Your task to perform on an android device: open app "TextNow: Call + Text Unlimited" (install if not already installed) and enter user name: "stoke@yahoo.com" and password: "prompted" Image 0: 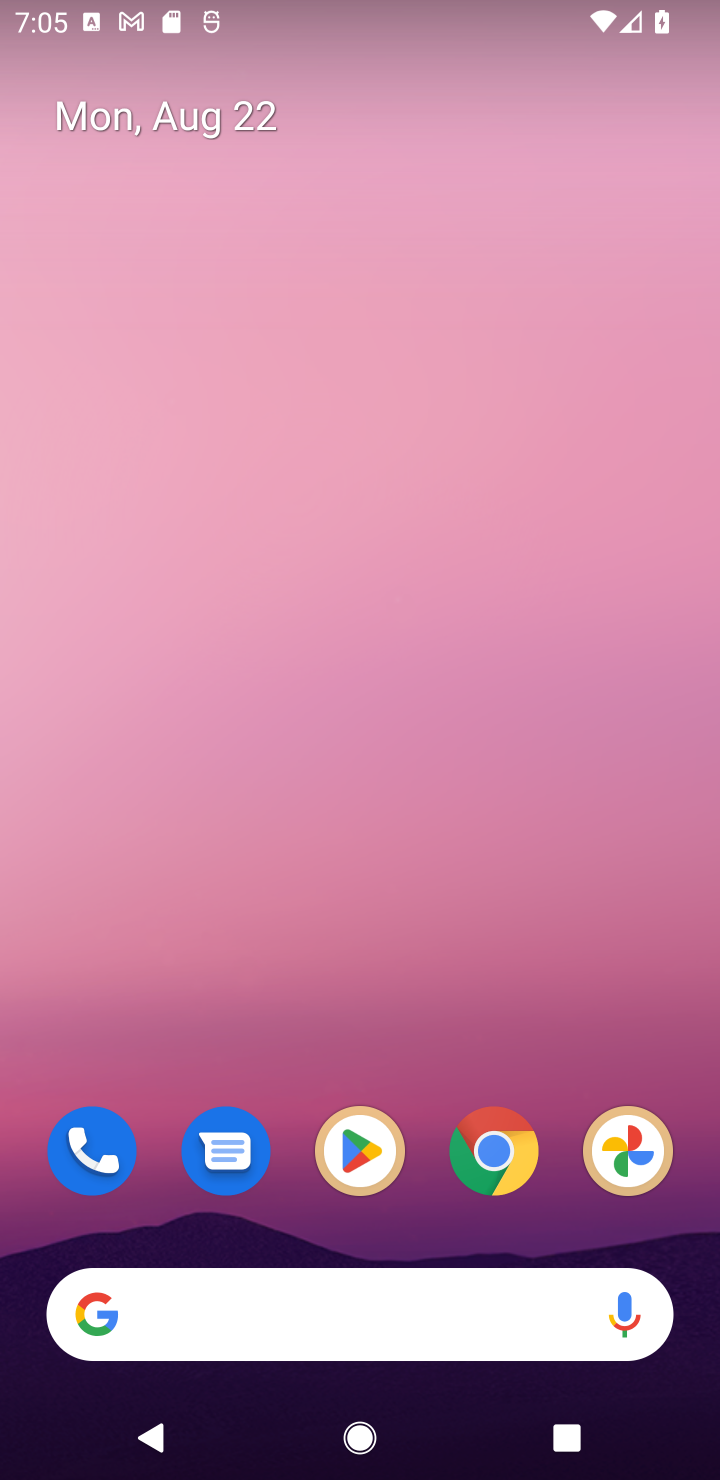
Step 0: click (342, 1141)
Your task to perform on an android device: open app "TextNow: Call + Text Unlimited" (install if not already installed) and enter user name: "stoke@yahoo.com" and password: "prompted" Image 1: 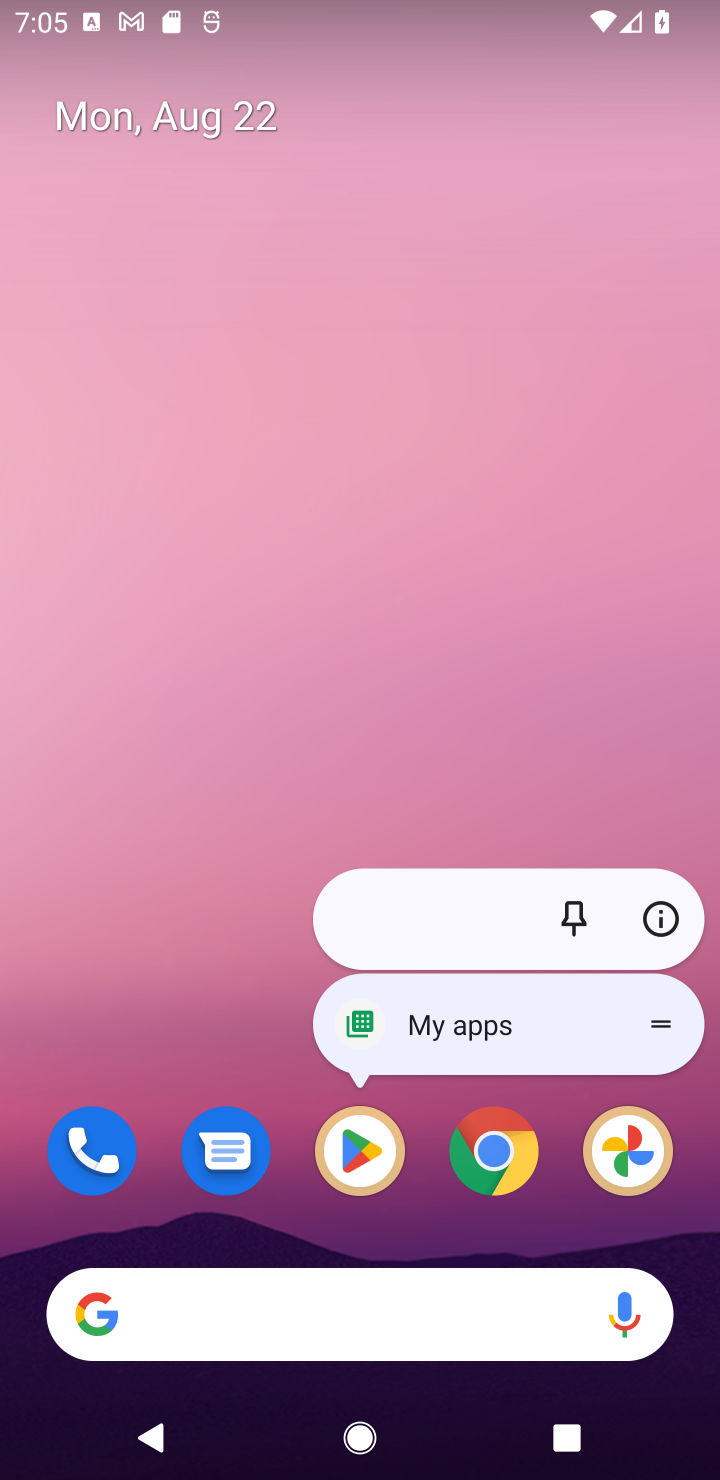
Step 1: click (347, 1141)
Your task to perform on an android device: open app "TextNow: Call + Text Unlimited" (install if not already installed) and enter user name: "stoke@yahoo.com" and password: "prompted" Image 2: 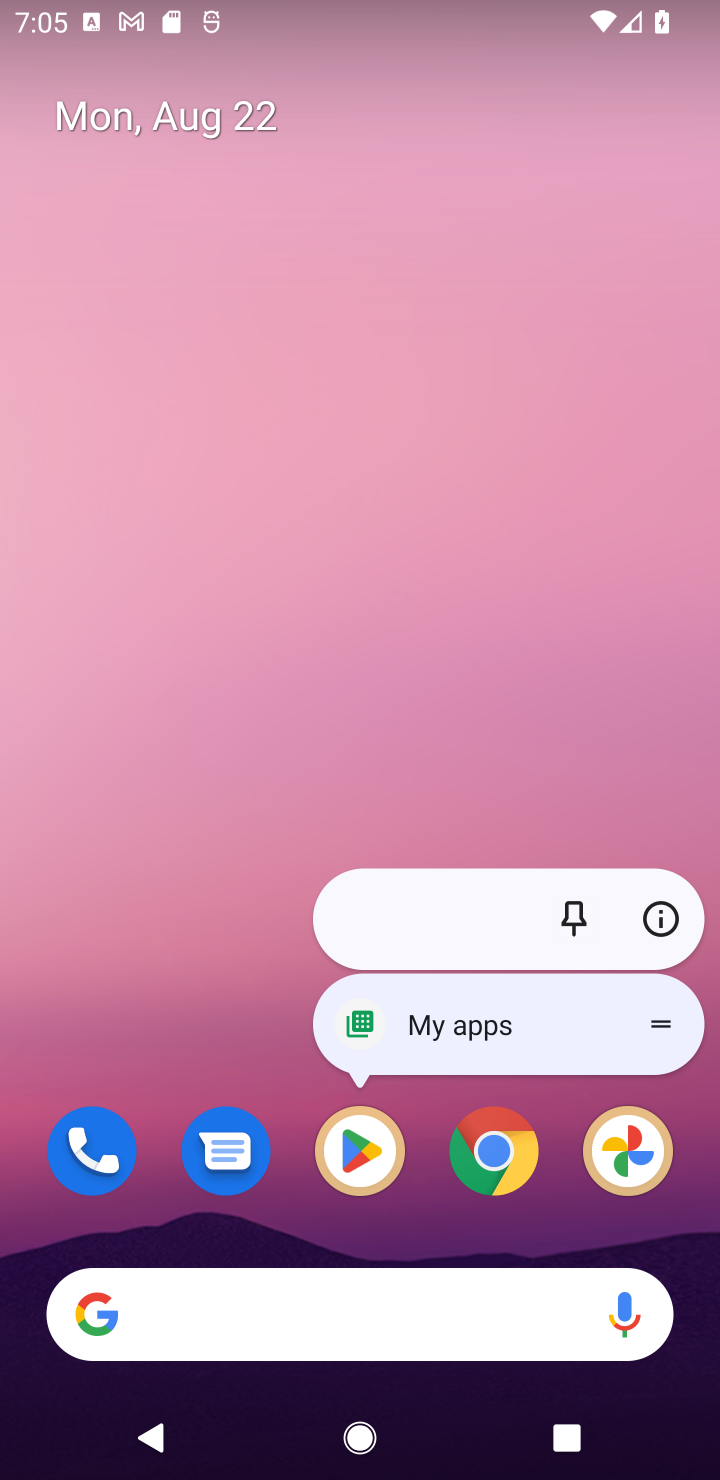
Step 2: click (347, 1142)
Your task to perform on an android device: open app "TextNow: Call + Text Unlimited" (install if not already installed) and enter user name: "stoke@yahoo.com" and password: "prompted" Image 3: 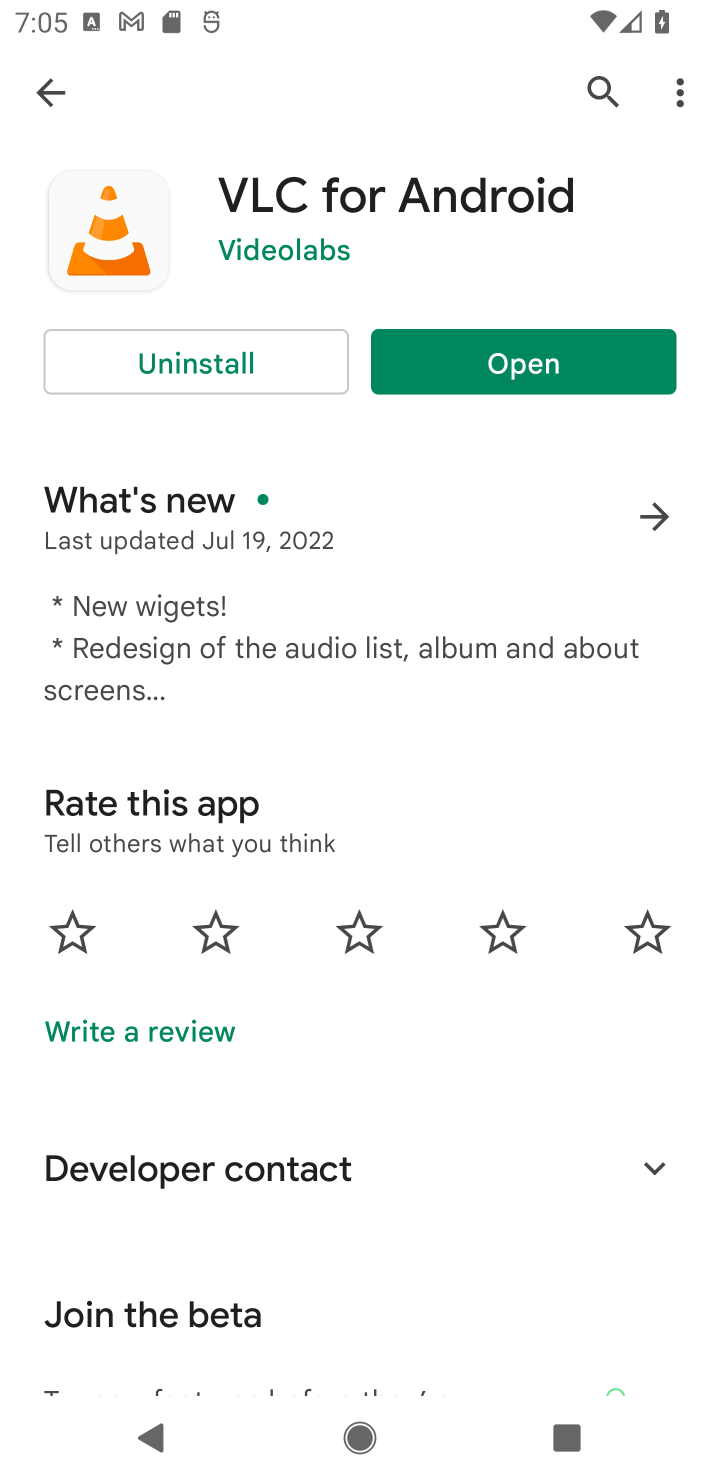
Step 3: click (592, 89)
Your task to perform on an android device: open app "TextNow: Call + Text Unlimited" (install if not already installed) and enter user name: "stoke@yahoo.com" and password: "prompted" Image 4: 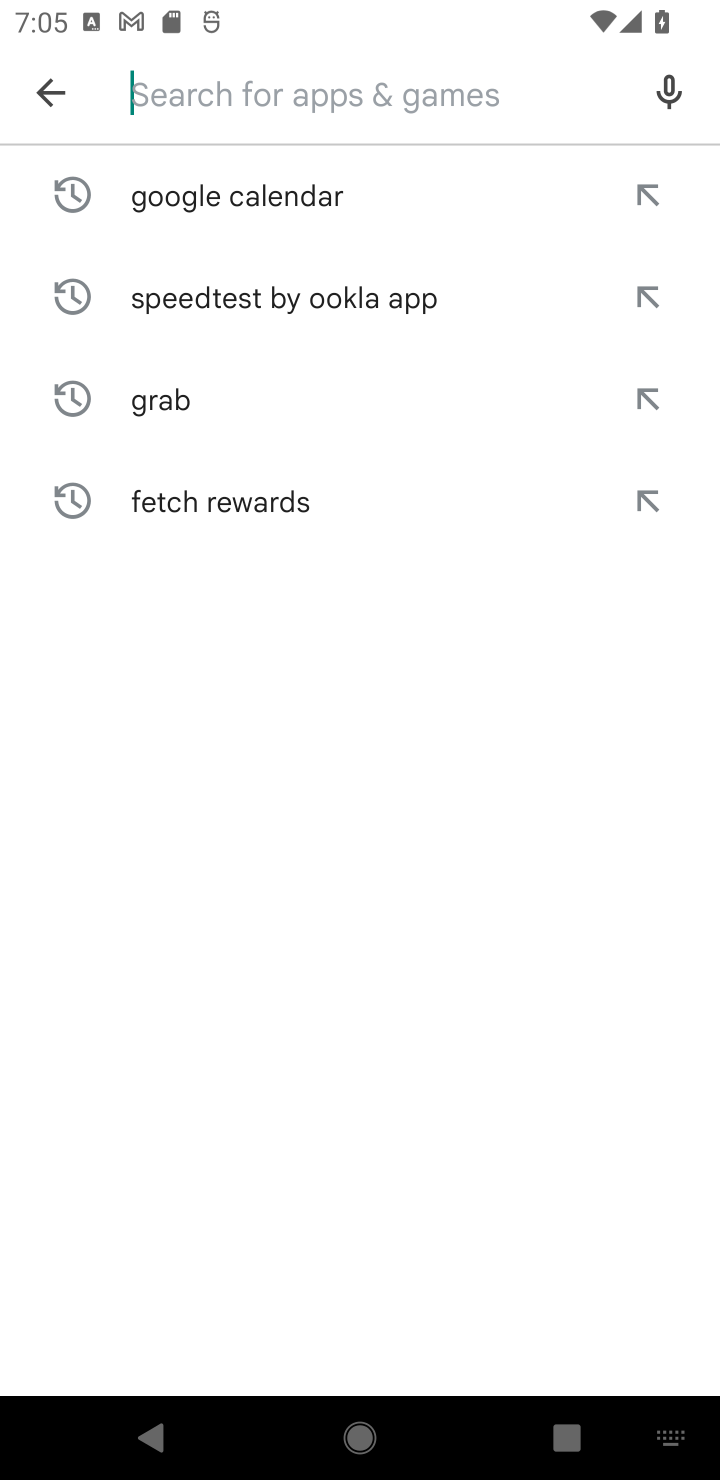
Step 4: type "TextNow: Call + Text Unlimited"
Your task to perform on an android device: open app "TextNow: Call + Text Unlimited" (install if not already installed) and enter user name: "stoke@yahoo.com" and password: "prompted" Image 5: 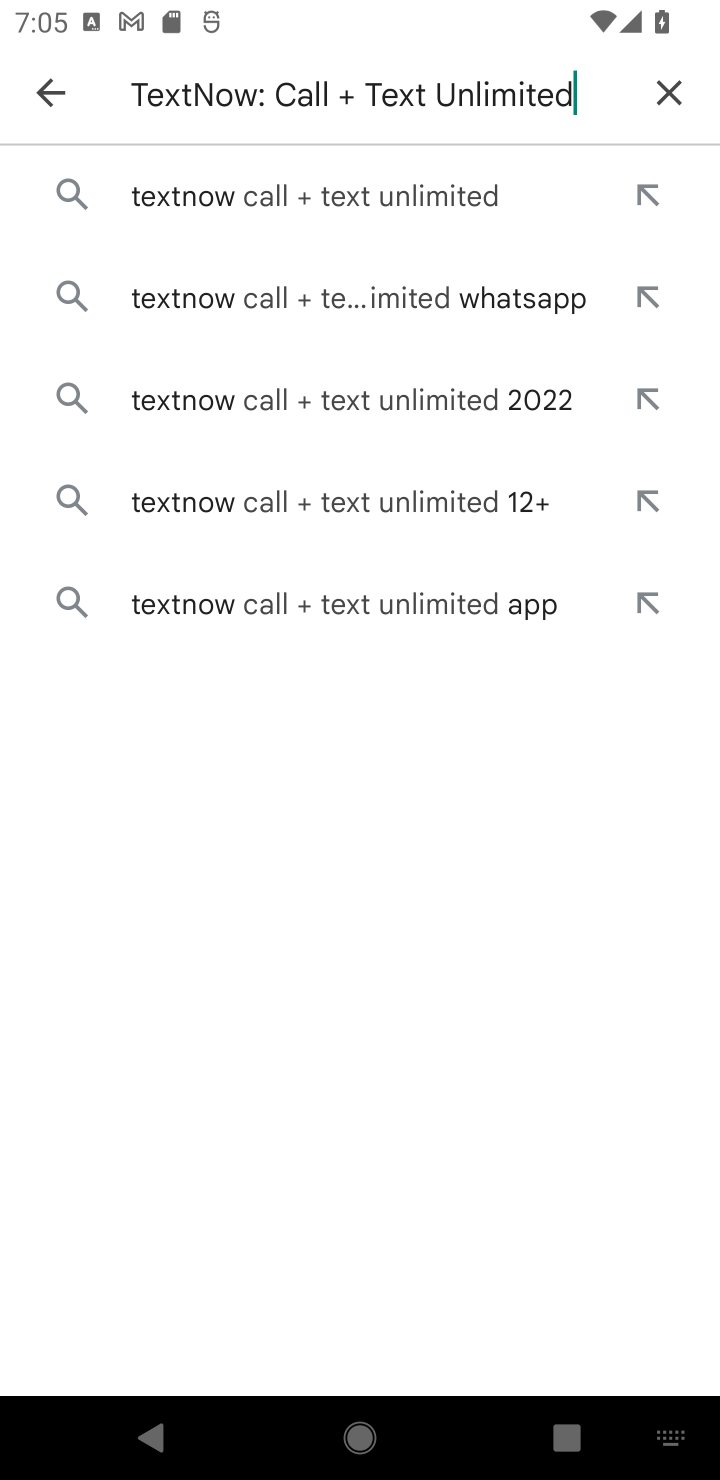
Step 5: click (256, 196)
Your task to perform on an android device: open app "TextNow: Call + Text Unlimited" (install if not already installed) and enter user name: "stoke@yahoo.com" and password: "prompted" Image 6: 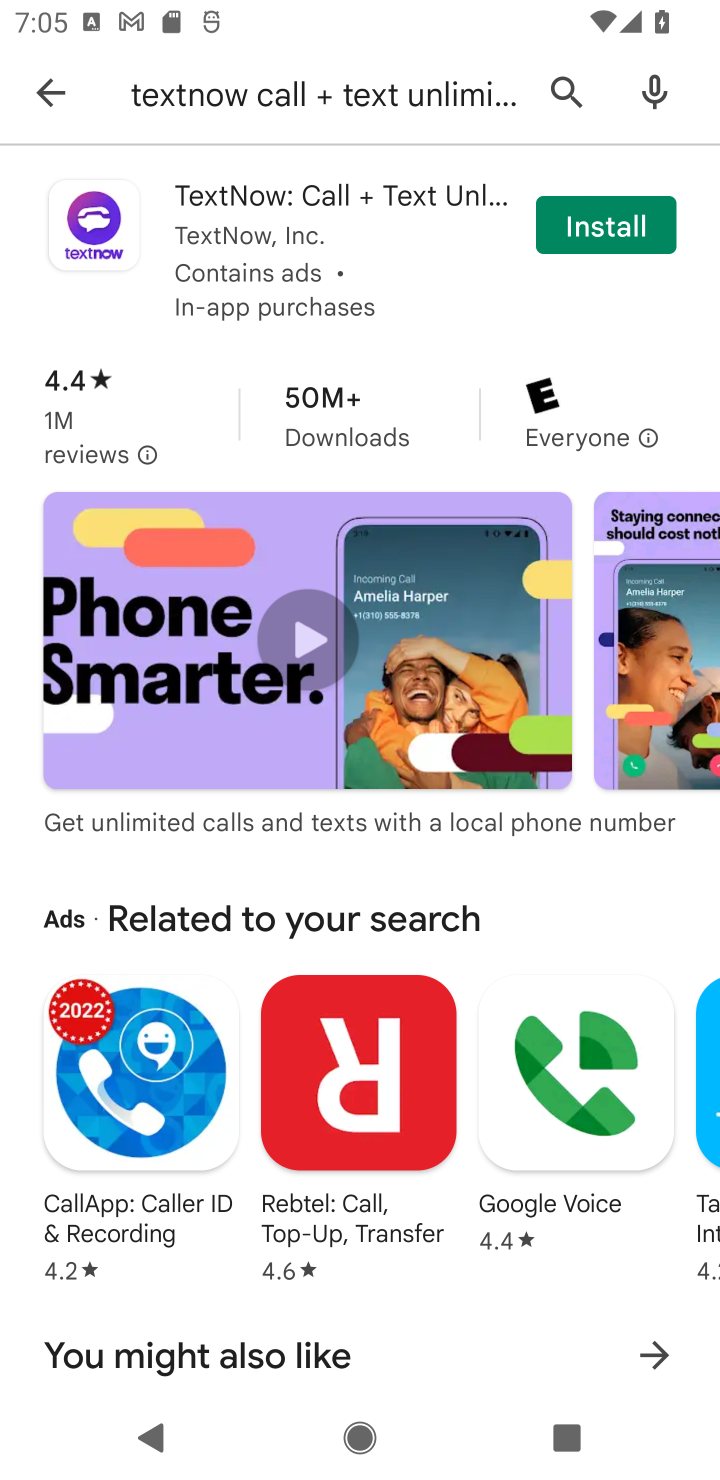
Step 6: click (580, 224)
Your task to perform on an android device: open app "TextNow: Call + Text Unlimited" (install if not already installed) and enter user name: "stoke@yahoo.com" and password: "prompted" Image 7: 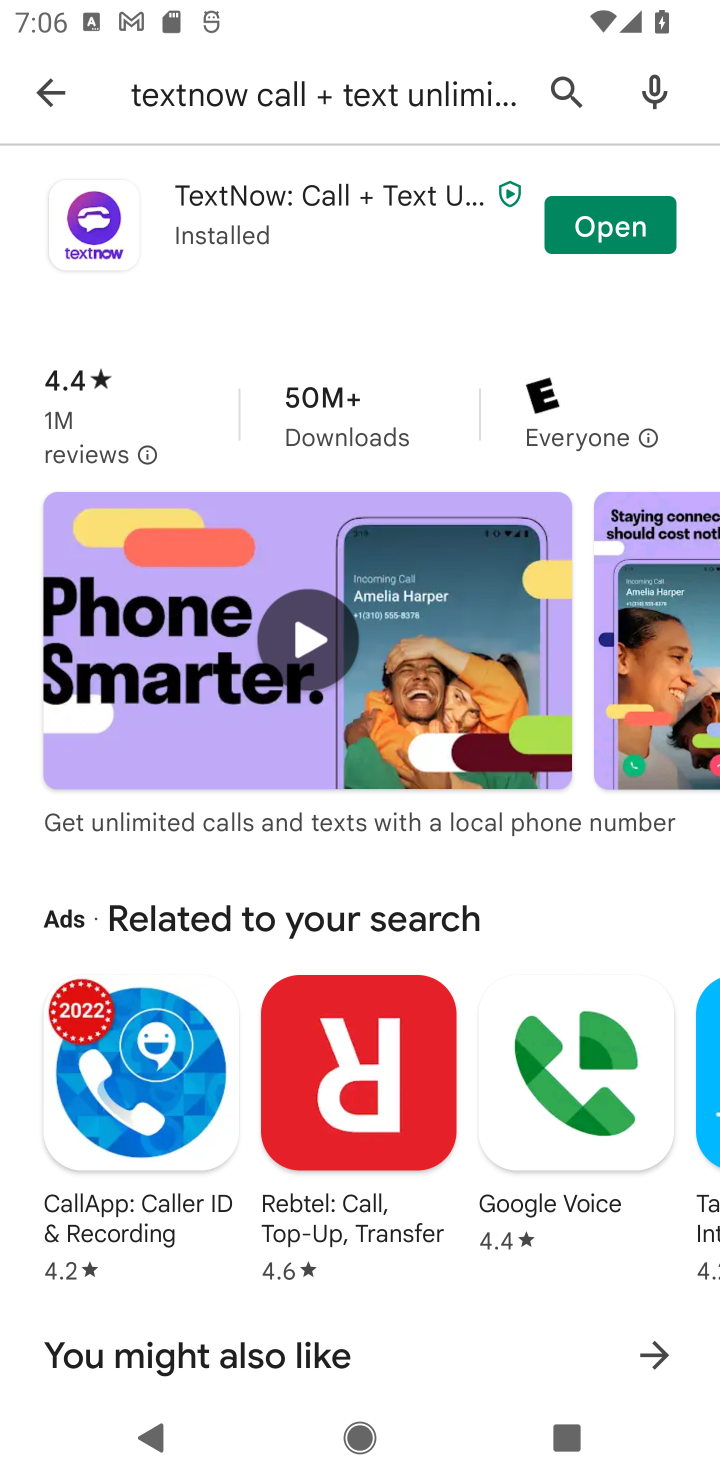
Step 7: click (596, 236)
Your task to perform on an android device: open app "TextNow: Call + Text Unlimited" (install if not already installed) and enter user name: "stoke@yahoo.com" and password: "prompted" Image 8: 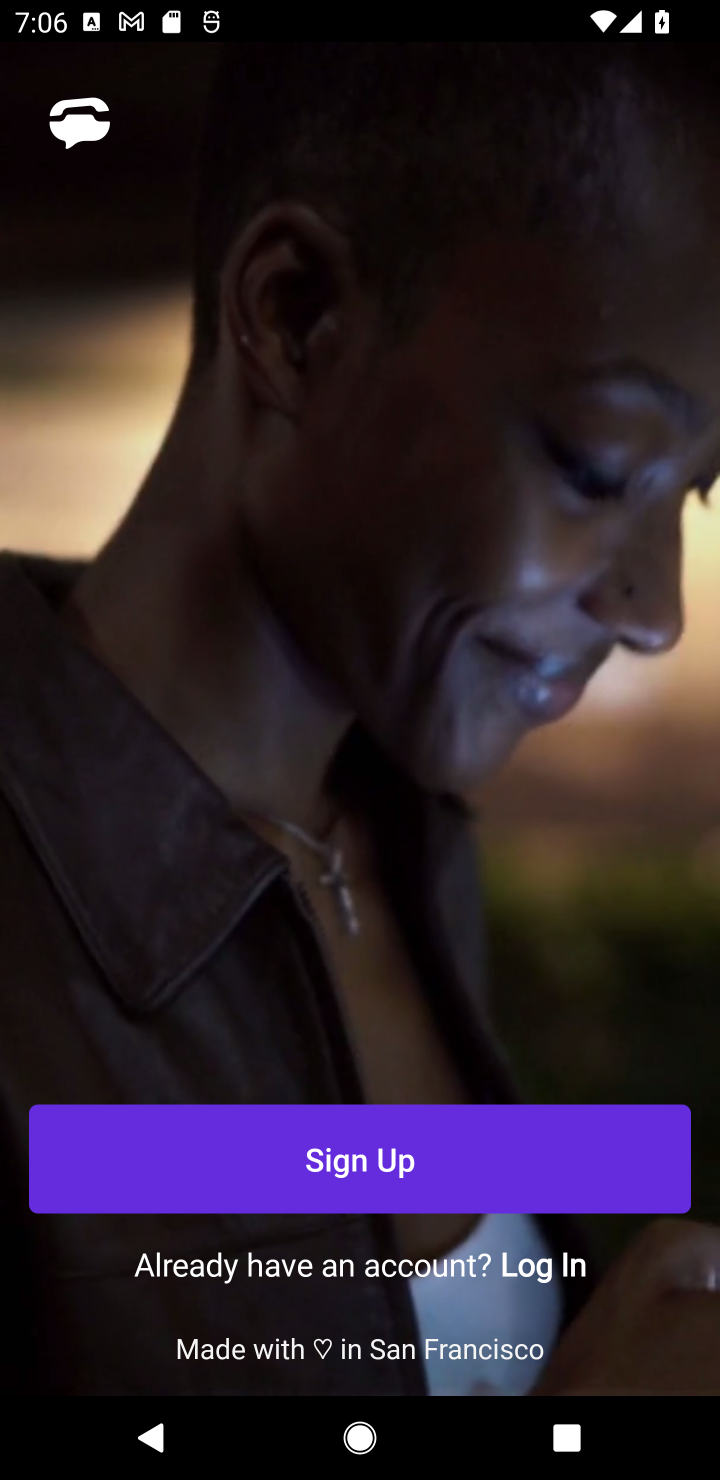
Step 8: click (508, 1264)
Your task to perform on an android device: open app "TextNow: Call + Text Unlimited" (install if not already installed) and enter user name: "stoke@yahoo.com" and password: "prompted" Image 9: 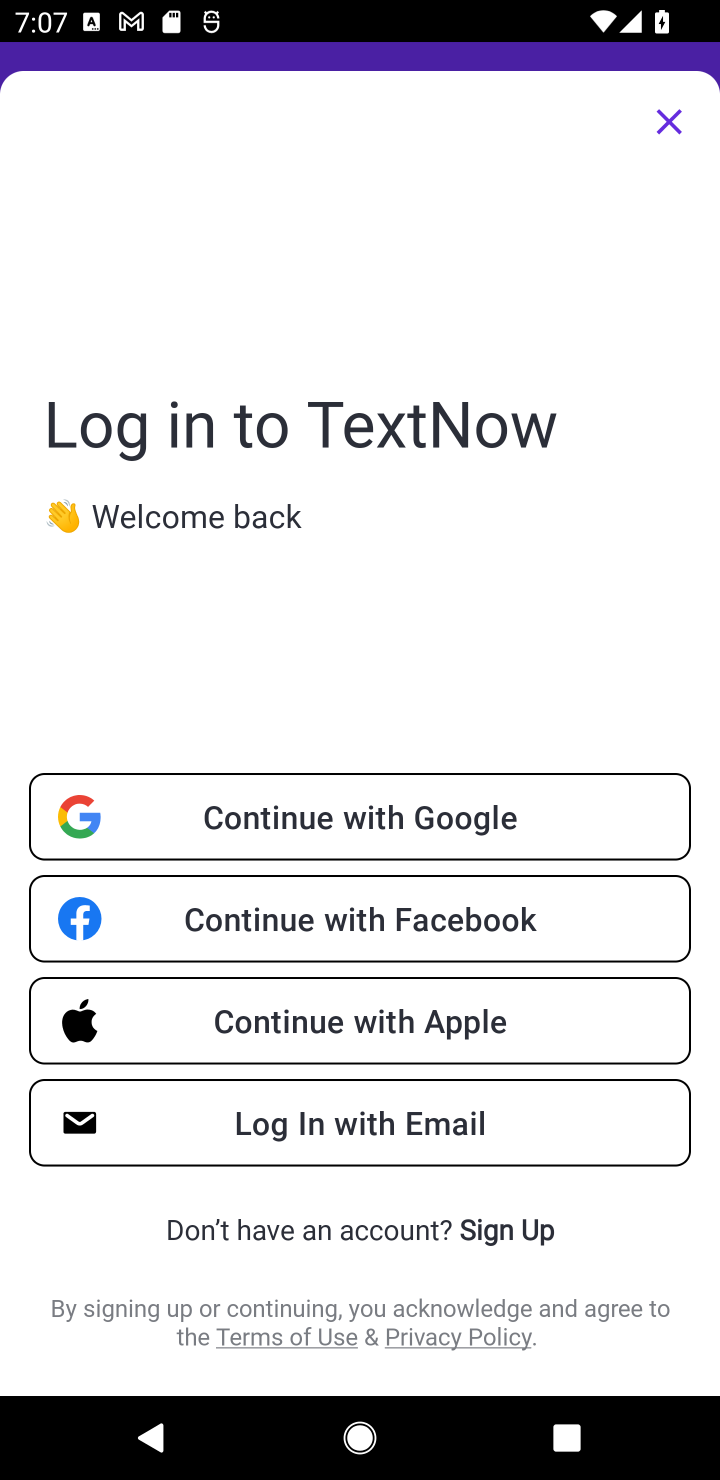
Step 9: click (442, 1121)
Your task to perform on an android device: open app "TextNow: Call + Text Unlimited" (install if not already installed) and enter user name: "stoke@yahoo.com" and password: "prompted" Image 10: 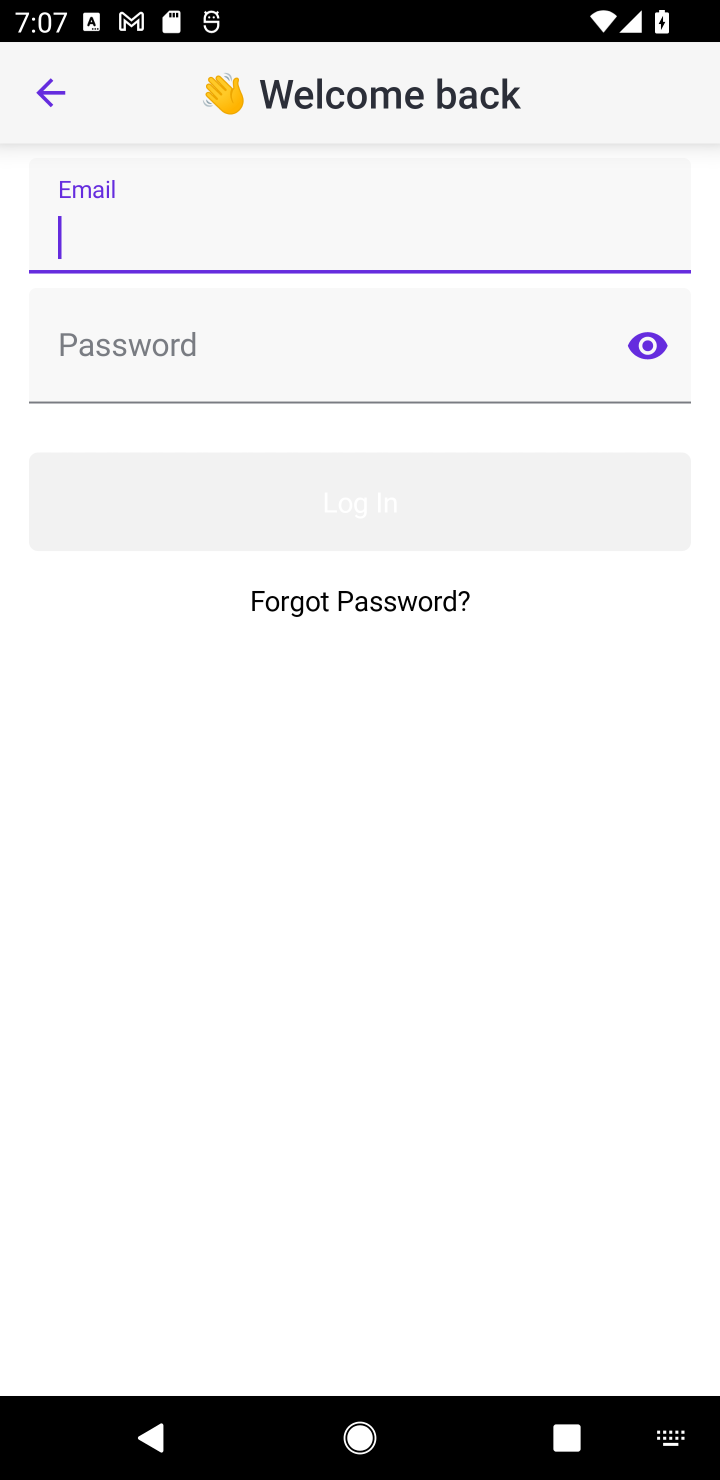
Step 10: type "stoke@yahoo.com"
Your task to perform on an android device: open app "TextNow: Call + Text Unlimited" (install if not already installed) and enter user name: "stoke@yahoo.com" and password: "prompted" Image 11: 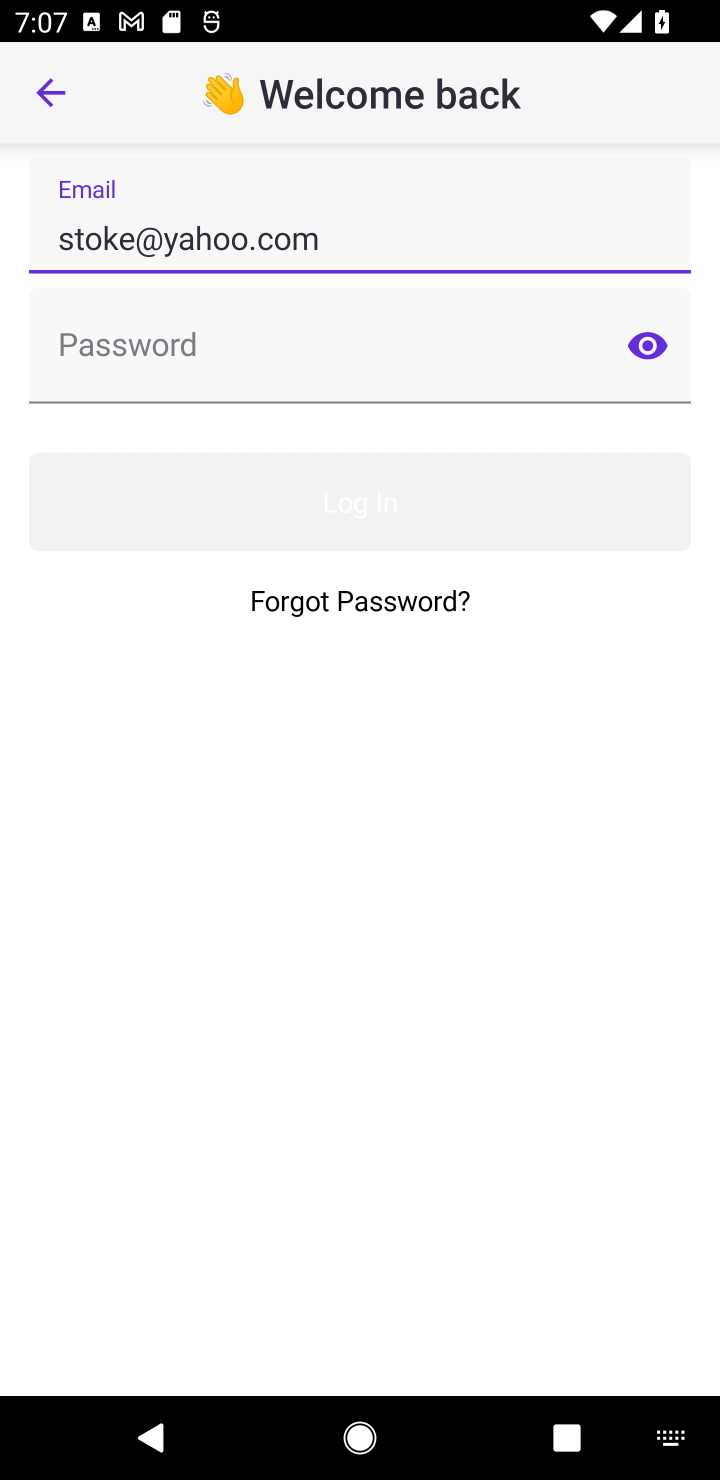
Step 11: click (33, 353)
Your task to perform on an android device: open app "TextNow: Call + Text Unlimited" (install if not already installed) and enter user name: "stoke@yahoo.com" and password: "prompted" Image 12: 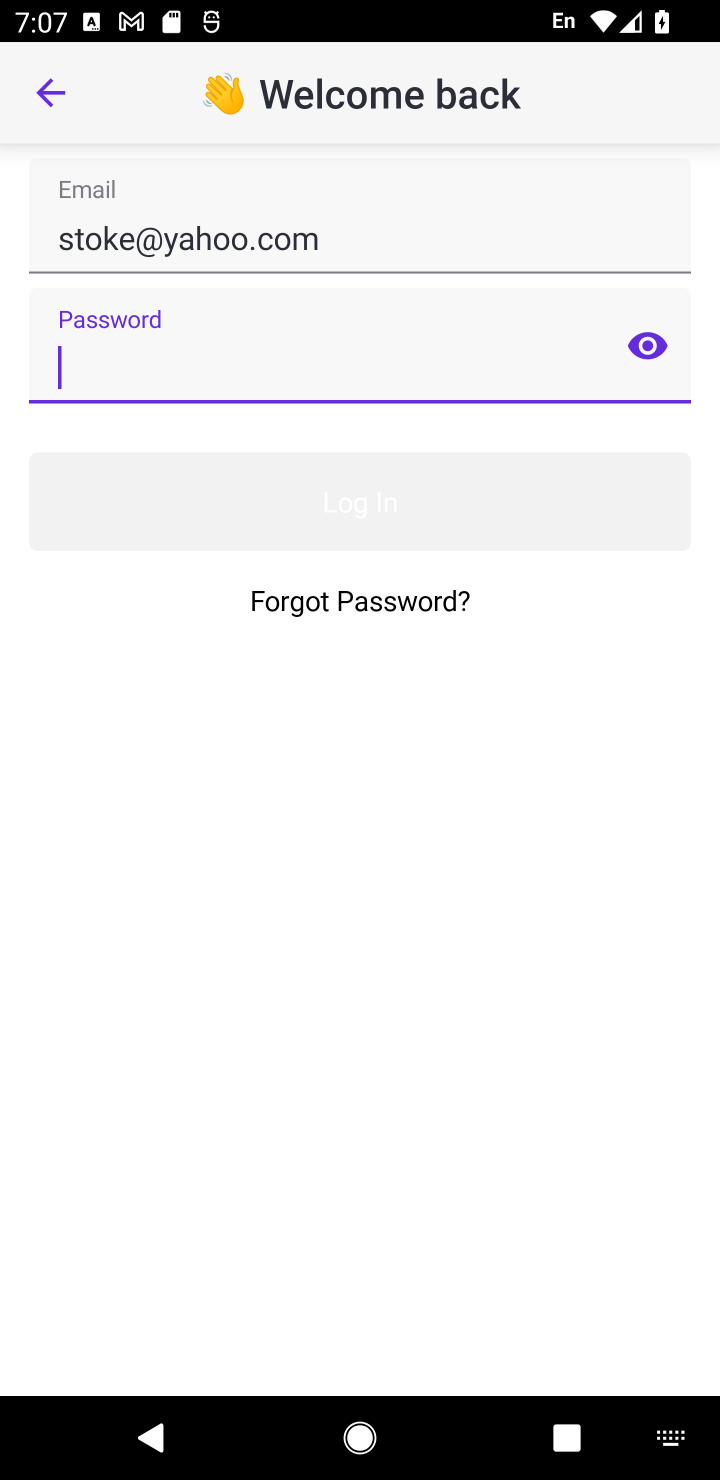
Step 12: type "prompted"
Your task to perform on an android device: open app "TextNow: Call + Text Unlimited" (install if not already installed) and enter user name: "stoke@yahoo.com" and password: "prompted" Image 13: 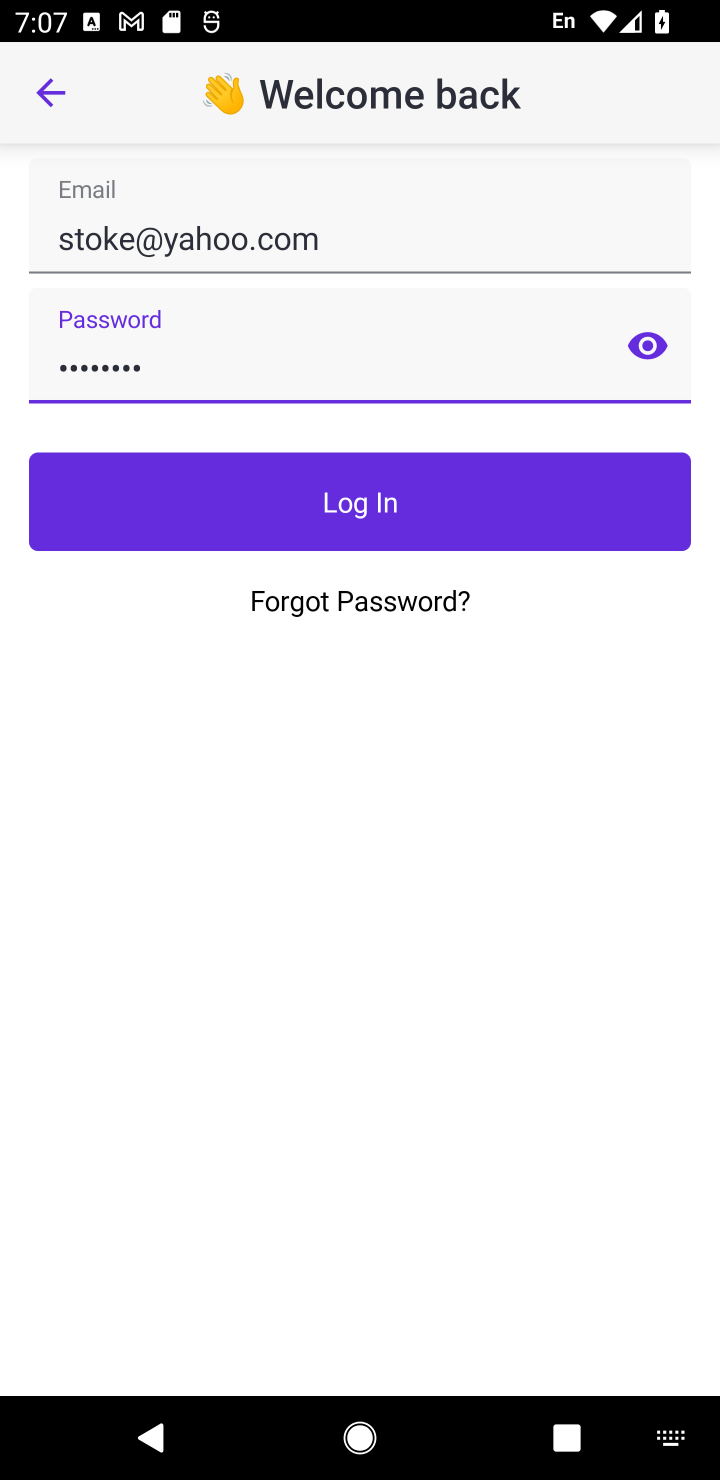
Step 13: task complete